Your task to perform on an android device: Go to settings Image 0: 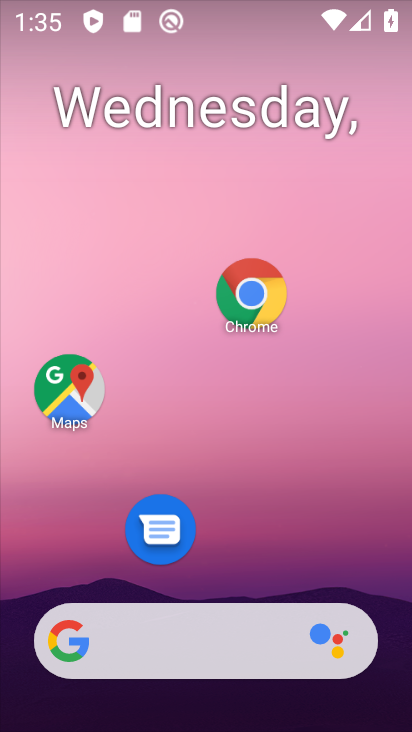
Step 0: drag from (226, 447) to (216, 204)
Your task to perform on an android device: Go to settings Image 1: 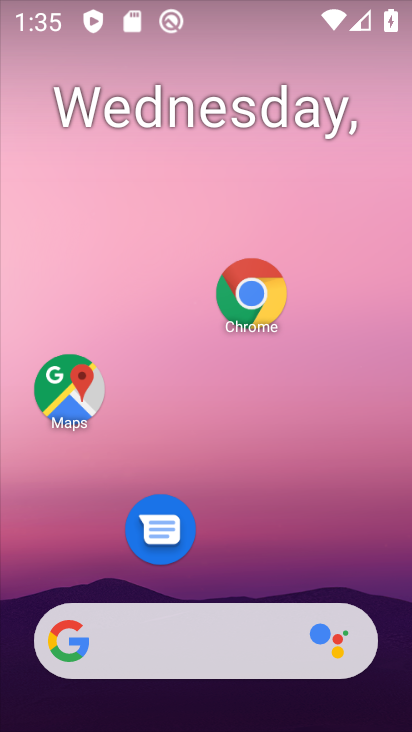
Step 1: drag from (260, 577) to (281, 104)
Your task to perform on an android device: Go to settings Image 2: 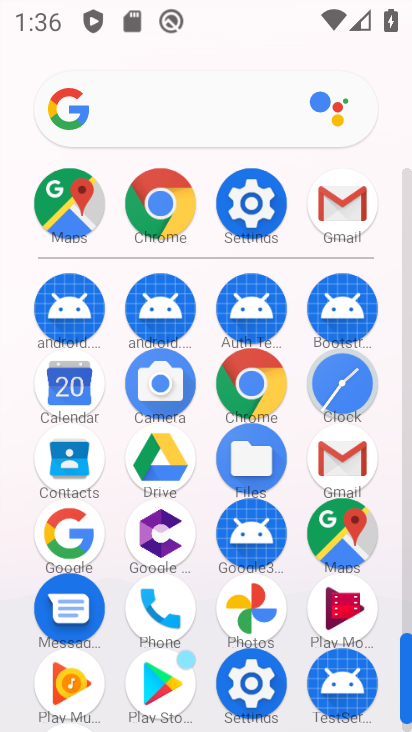
Step 2: click (257, 236)
Your task to perform on an android device: Go to settings Image 3: 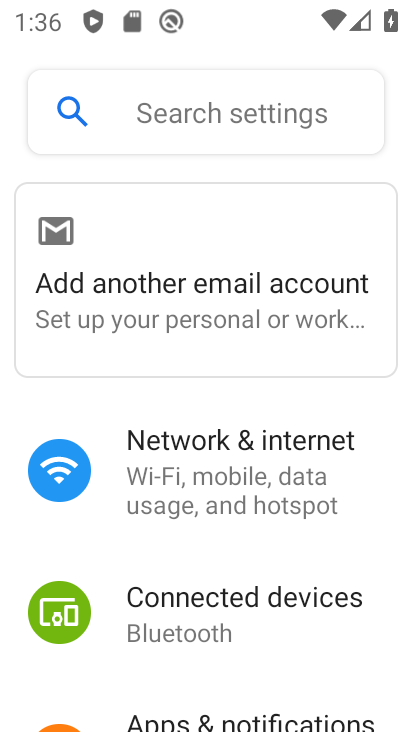
Step 3: task complete